Your task to perform on an android device: Go to battery settings Image 0: 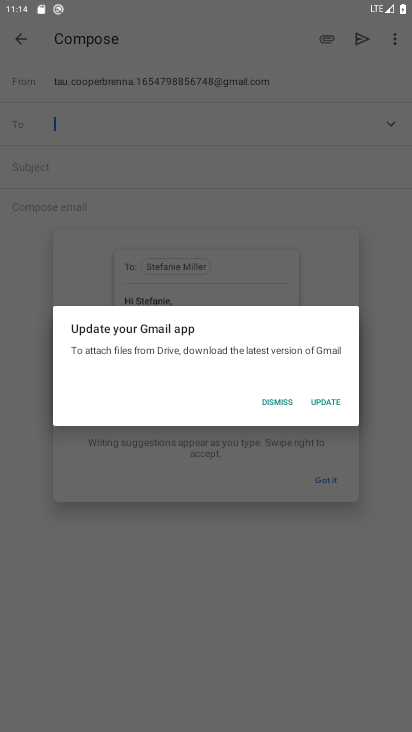
Step 0: press home button
Your task to perform on an android device: Go to battery settings Image 1: 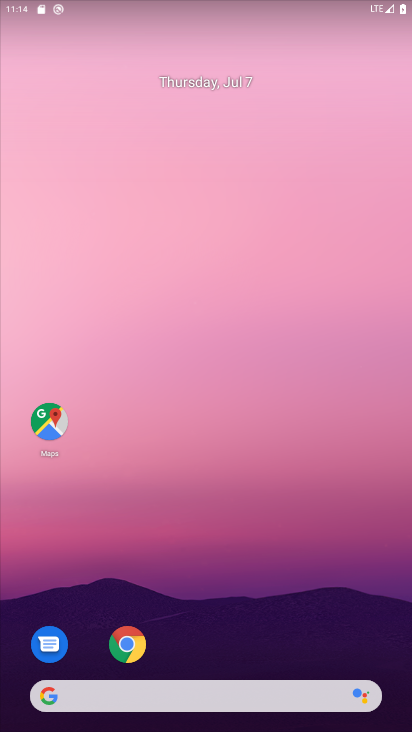
Step 1: drag from (18, 704) to (253, 20)
Your task to perform on an android device: Go to battery settings Image 2: 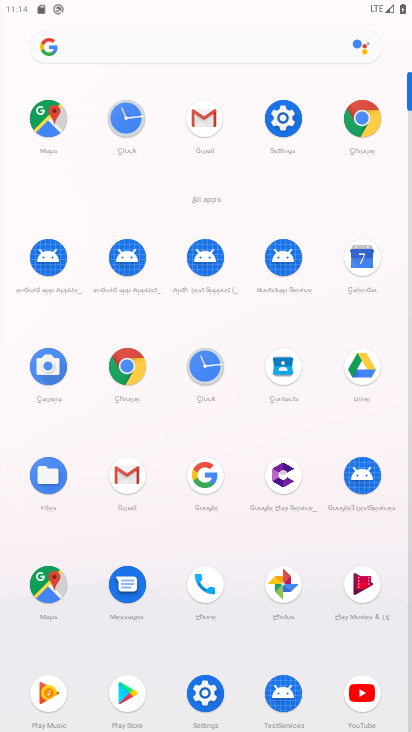
Step 2: click (191, 690)
Your task to perform on an android device: Go to battery settings Image 3: 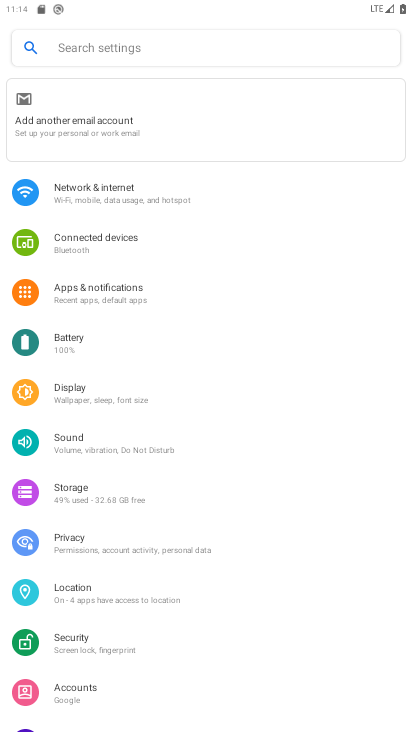
Step 3: click (71, 346)
Your task to perform on an android device: Go to battery settings Image 4: 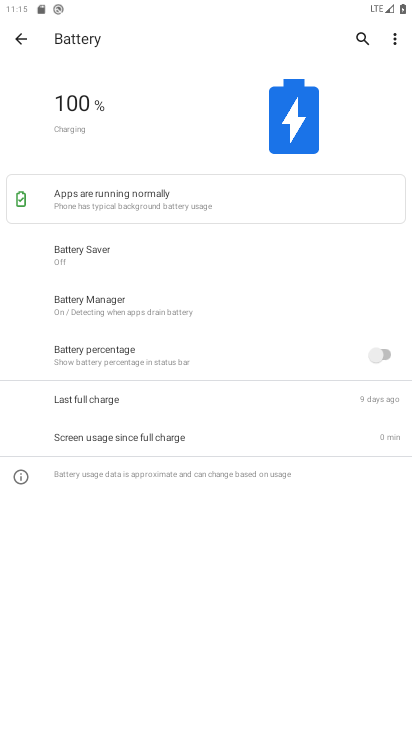
Step 4: task complete